Your task to perform on an android device: Open the calendar app, open the side menu, and click the "Day" option Image 0: 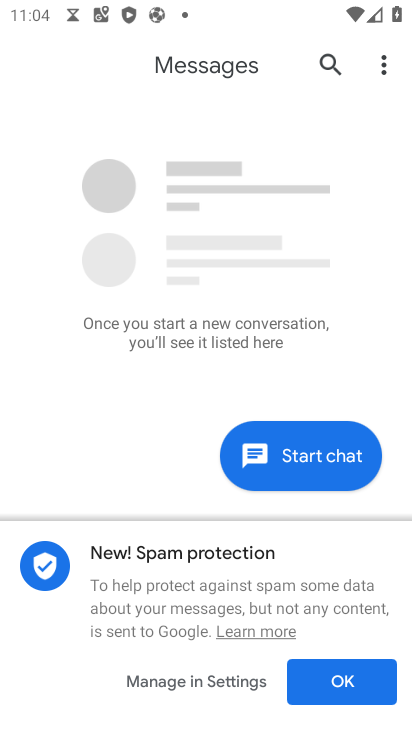
Step 0: press home button
Your task to perform on an android device: Open the calendar app, open the side menu, and click the "Day" option Image 1: 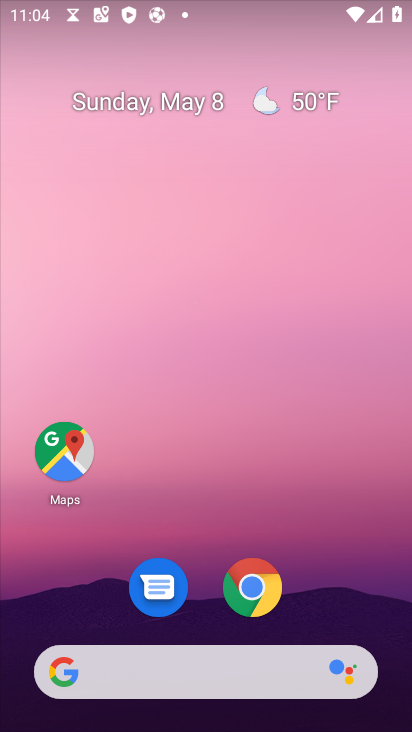
Step 1: drag from (237, 496) to (142, 118)
Your task to perform on an android device: Open the calendar app, open the side menu, and click the "Day" option Image 2: 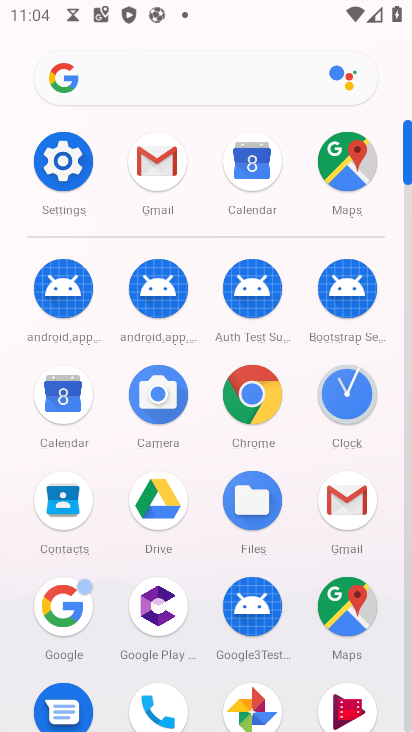
Step 2: click (250, 157)
Your task to perform on an android device: Open the calendar app, open the side menu, and click the "Day" option Image 3: 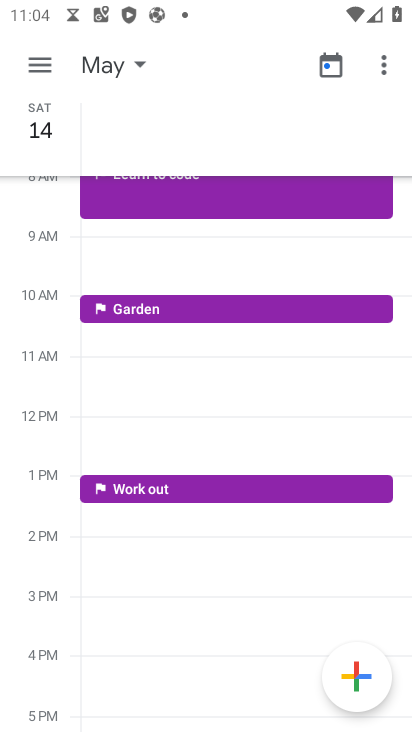
Step 3: click (42, 69)
Your task to perform on an android device: Open the calendar app, open the side menu, and click the "Day" option Image 4: 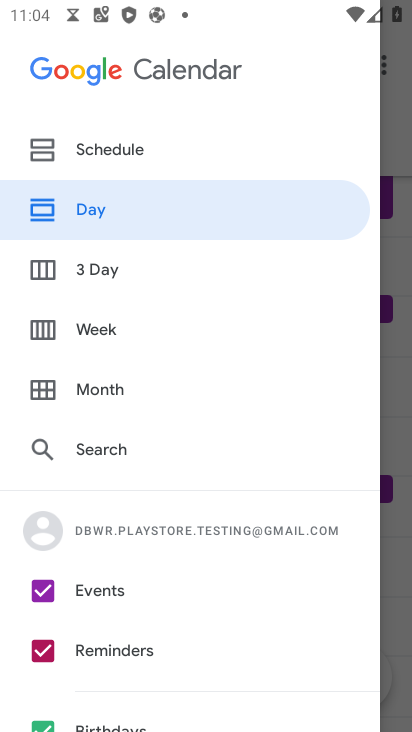
Step 4: task complete